Your task to perform on an android device: change the upload size in google photos Image 0: 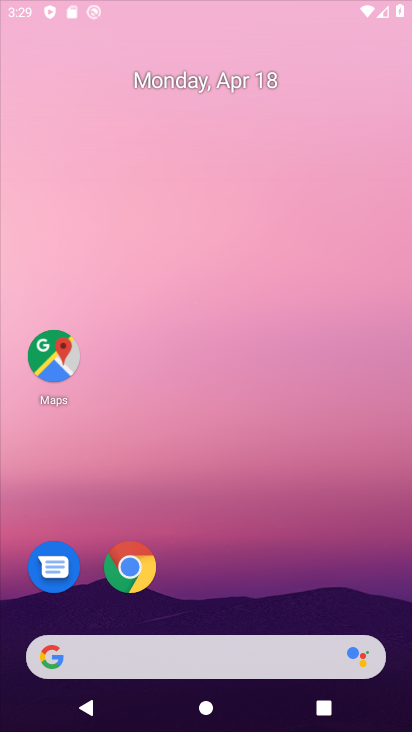
Step 0: drag from (286, 114) to (193, 142)
Your task to perform on an android device: change the upload size in google photos Image 1: 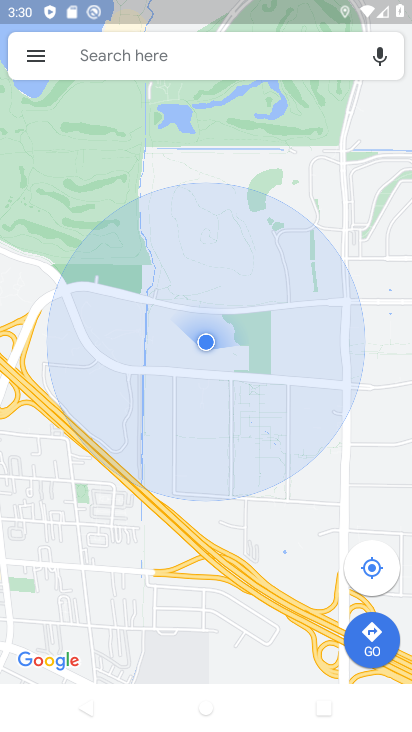
Step 1: press home button
Your task to perform on an android device: change the upload size in google photos Image 2: 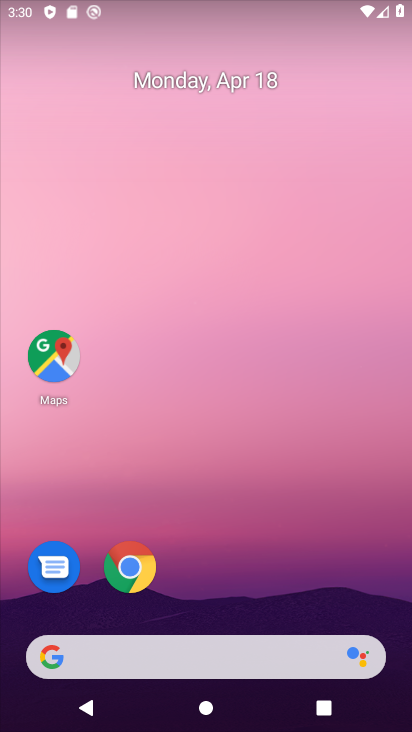
Step 2: drag from (201, 556) to (220, 147)
Your task to perform on an android device: change the upload size in google photos Image 3: 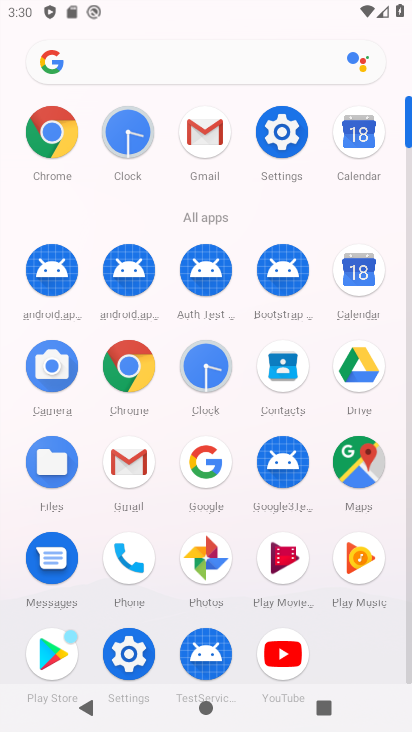
Step 3: click (211, 561)
Your task to perform on an android device: change the upload size in google photos Image 4: 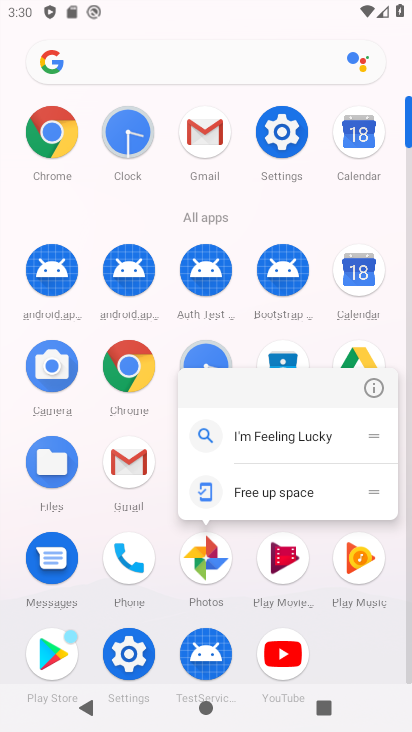
Step 4: click (201, 562)
Your task to perform on an android device: change the upload size in google photos Image 5: 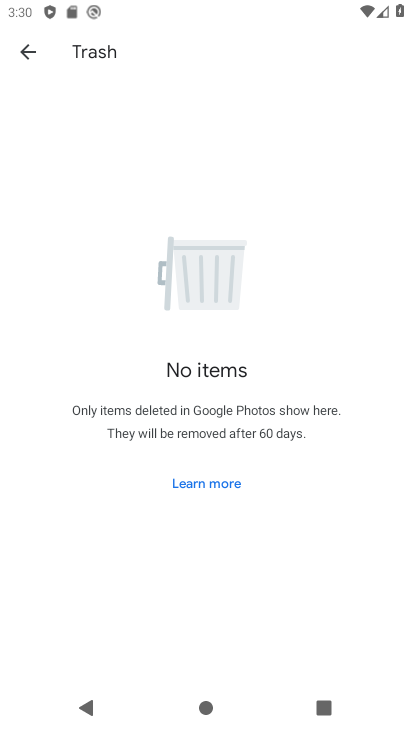
Step 5: press back button
Your task to perform on an android device: change the upload size in google photos Image 6: 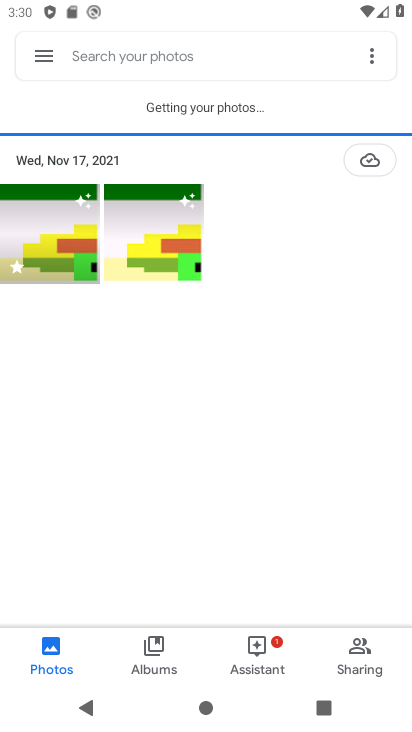
Step 6: click (33, 55)
Your task to perform on an android device: change the upload size in google photos Image 7: 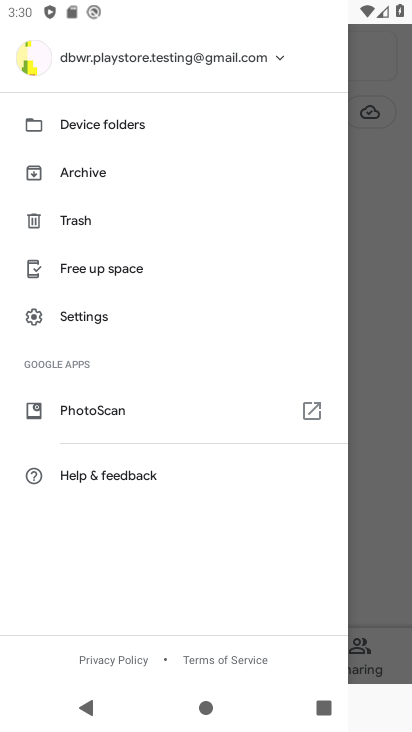
Step 7: click (93, 319)
Your task to perform on an android device: change the upload size in google photos Image 8: 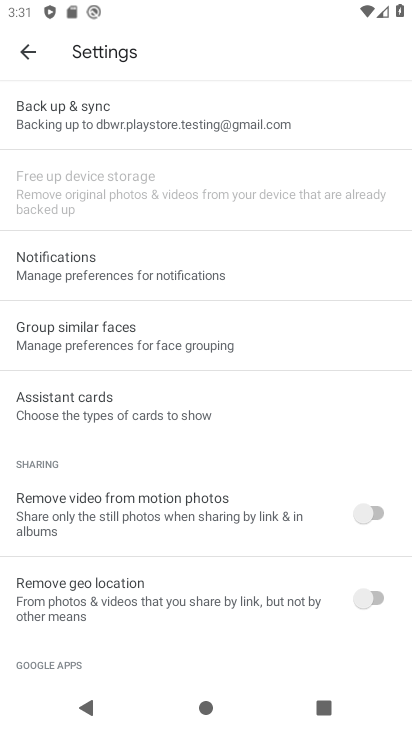
Step 8: click (77, 116)
Your task to perform on an android device: change the upload size in google photos Image 9: 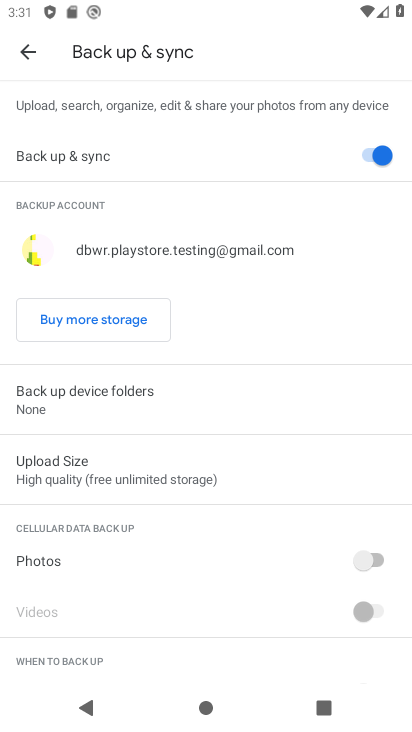
Step 9: drag from (57, 576) to (338, 731)
Your task to perform on an android device: change the upload size in google photos Image 10: 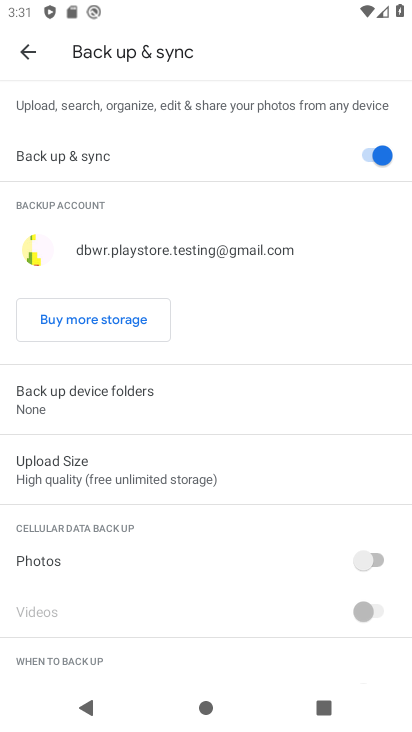
Step 10: drag from (214, 598) to (183, 402)
Your task to perform on an android device: change the upload size in google photos Image 11: 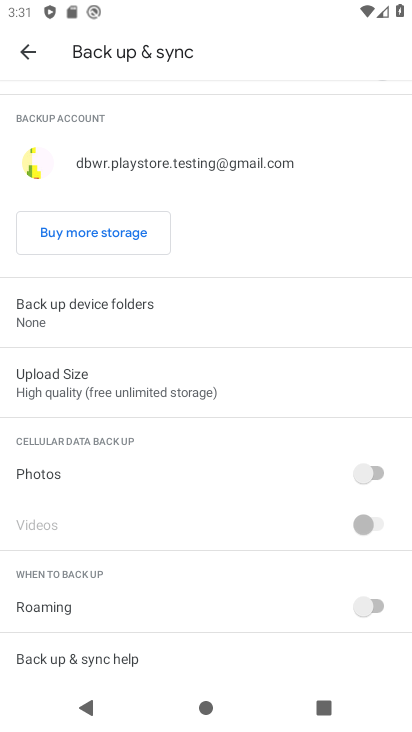
Step 11: click (53, 397)
Your task to perform on an android device: change the upload size in google photos Image 12: 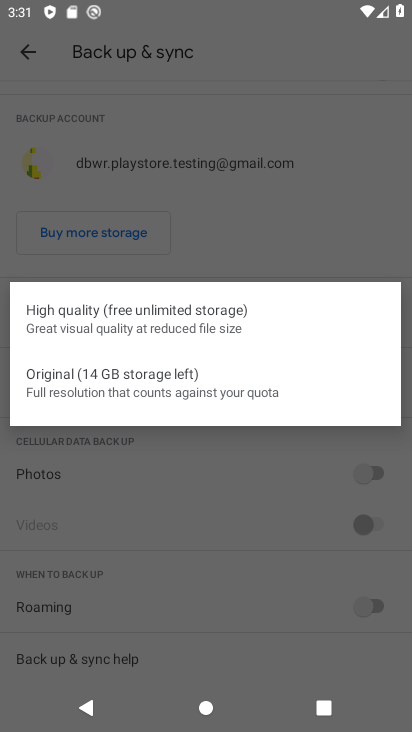
Step 12: click (122, 388)
Your task to perform on an android device: change the upload size in google photos Image 13: 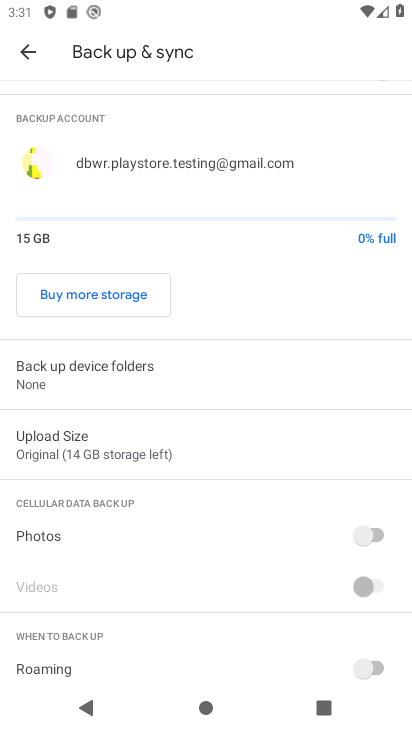
Step 13: task complete